Your task to perform on an android device: Open accessibility settings Image 0: 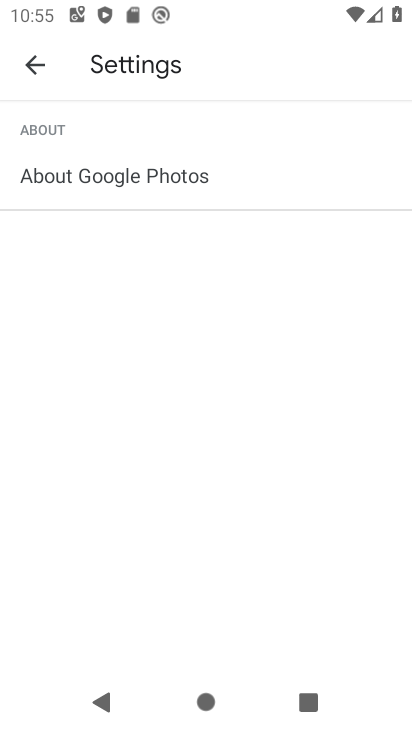
Step 0: press home button
Your task to perform on an android device: Open accessibility settings Image 1: 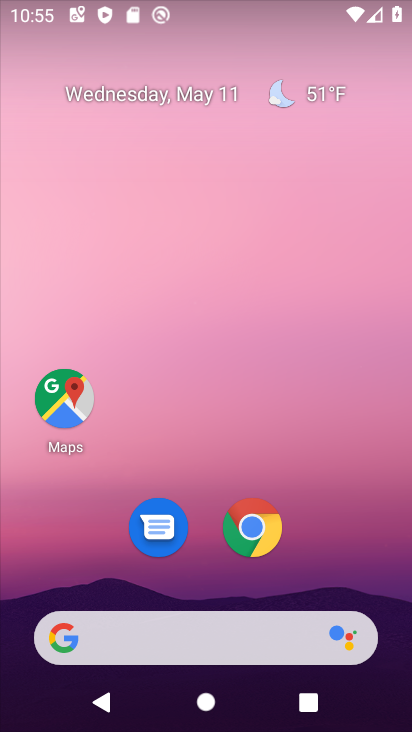
Step 1: drag from (332, 541) to (376, 158)
Your task to perform on an android device: Open accessibility settings Image 2: 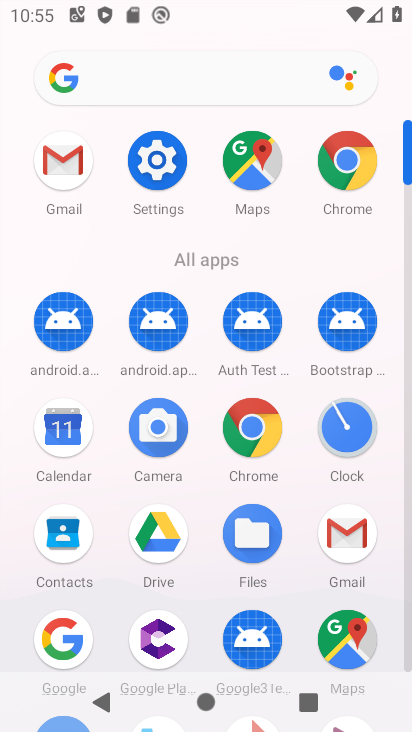
Step 2: click (146, 166)
Your task to perform on an android device: Open accessibility settings Image 3: 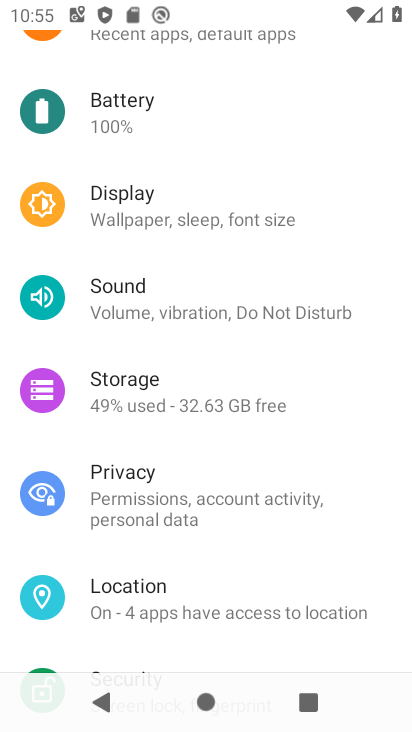
Step 3: drag from (128, 341) to (179, 157)
Your task to perform on an android device: Open accessibility settings Image 4: 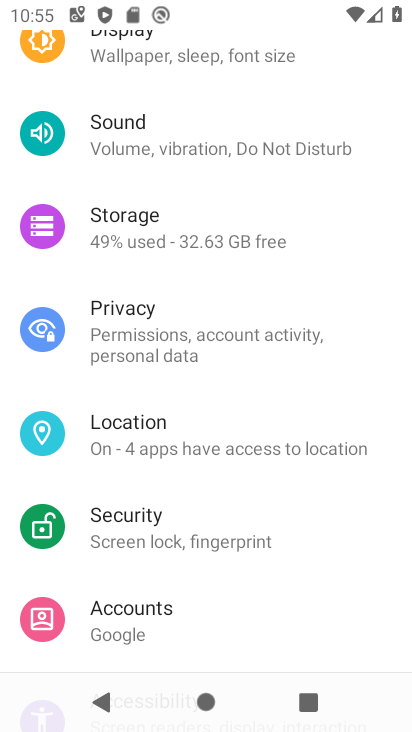
Step 4: drag from (129, 387) to (239, 96)
Your task to perform on an android device: Open accessibility settings Image 5: 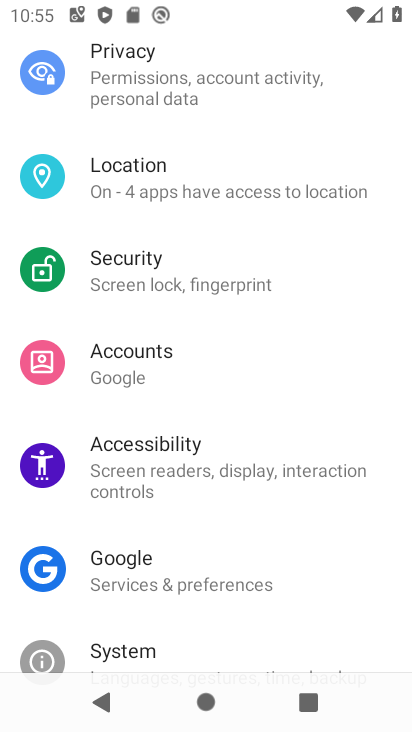
Step 5: click (145, 462)
Your task to perform on an android device: Open accessibility settings Image 6: 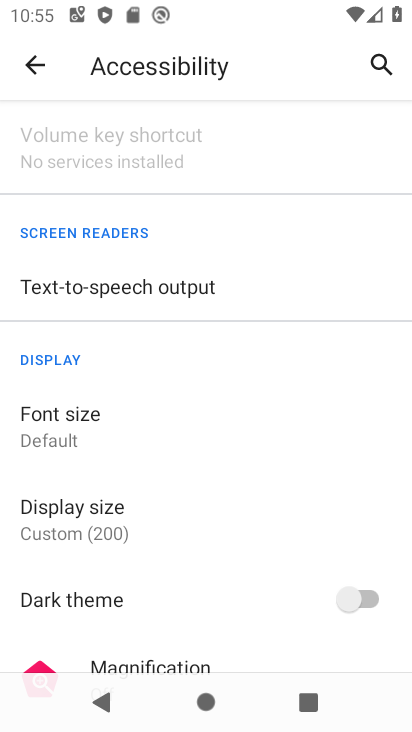
Step 6: task complete